Your task to perform on an android device: open chrome and create a bookmark for the current page Image 0: 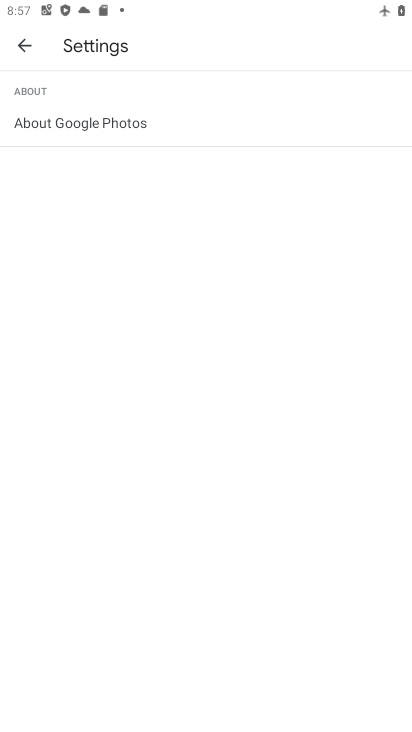
Step 0: press home button
Your task to perform on an android device: open chrome and create a bookmark for the current page Image 1: 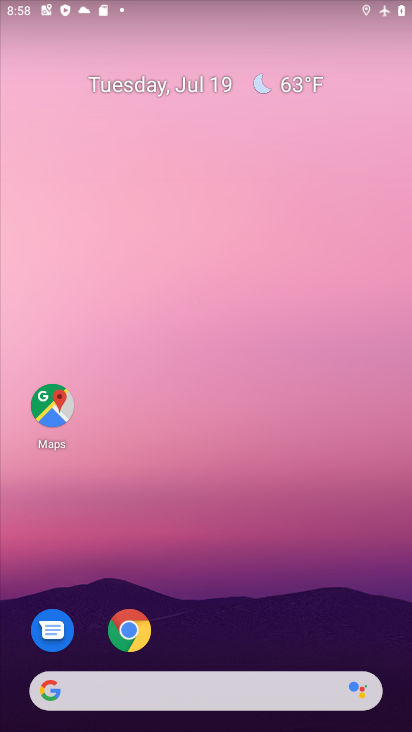
Step 1: click (130, 635)
Your task to perform on an android device: open chrome and create a bookmark for the current page Image 2: 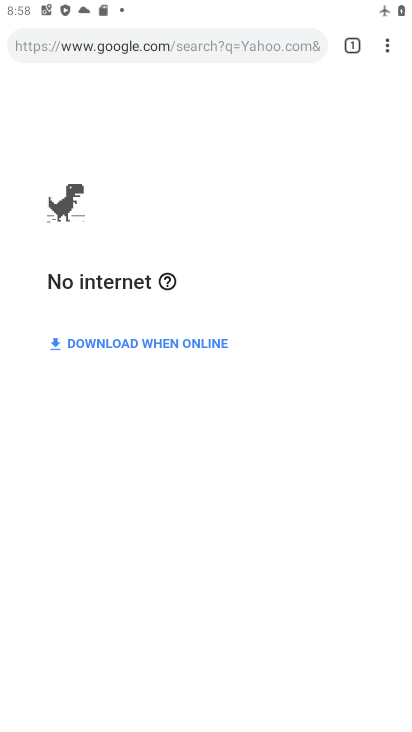
Step 2: click (388, 46)
Your task to perform on an android device: open chrome and create a bookmark for the current page Image 3: 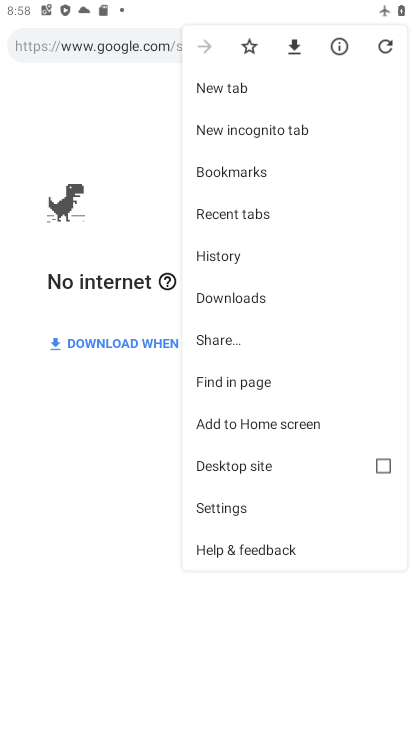
Step 3: click (248, 49)
Your task to perform on an android device: open chrome and create a bookmark for the current page Image 4: 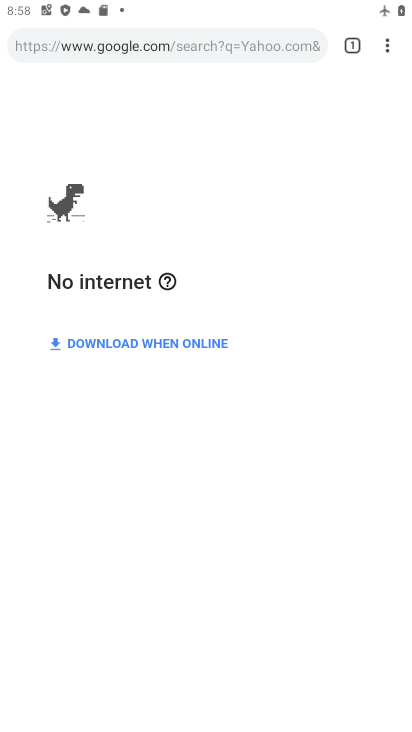
Step 4: task complete